Your task to perform on an android device: Go to location settings Image 0: 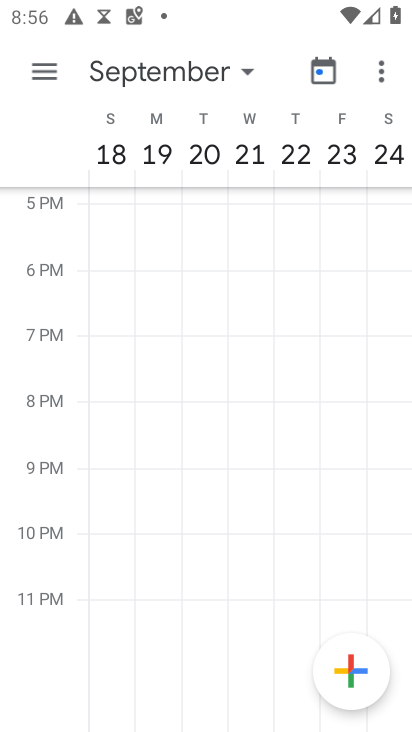
Step 0: press home button
Your task to perform on an android device: Go to location settings Image 1: 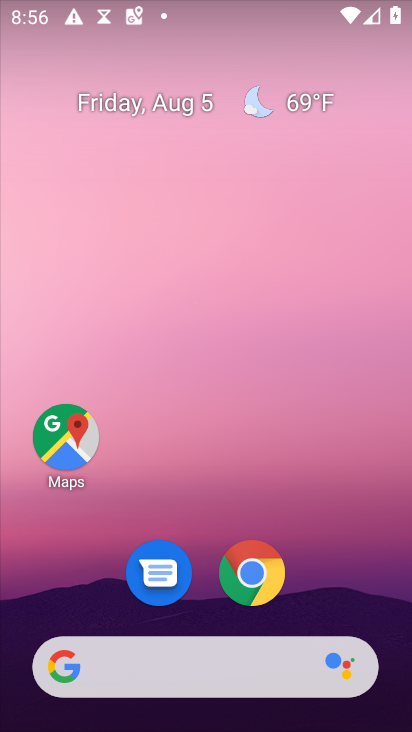
Step 1: drag from (184, 675) to (214, 85)
Your task to perform on an android device: Go to location settings Image 2: 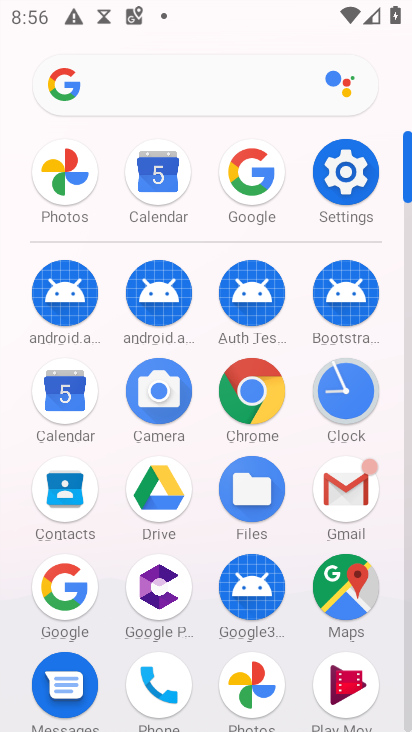
Step 2: click (343, 173)
Your task to perform on an android device: Go to location settings Image 3: 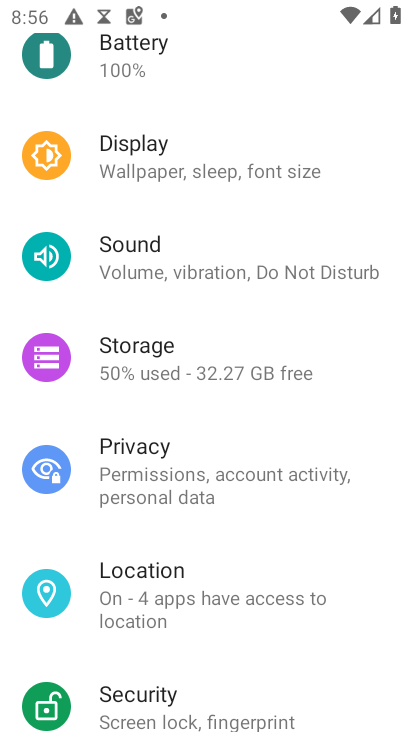
Step 3: click (157, 593)
Your task to perform on an android device: Go to location settings Image 4: 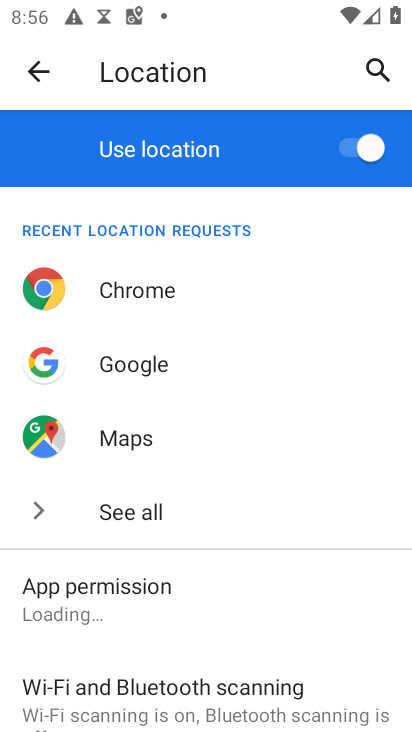
Step 4: task complete